Your task to perform on an android device: Search for Italian restaurants on Maps Image 0: 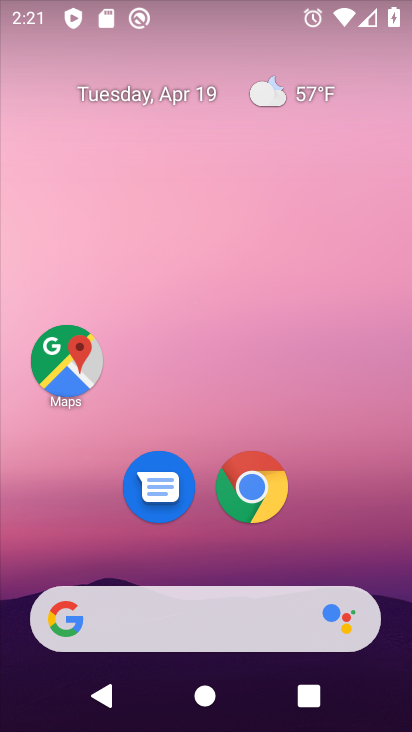
Step 0: drag from (376, 503) to (364, 110)
Your task to perform on an android device: Search for Italian restaurants on Maps Image 1: 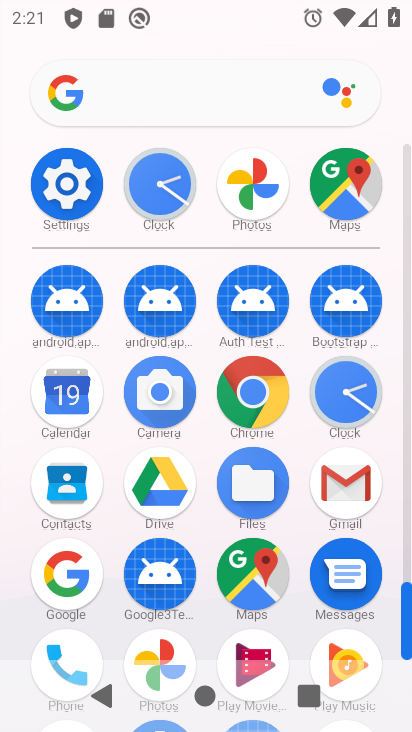
Step 1: click (246, 584)
Your task to perform on an android device: Search for Italian restaurants on Maps Image 2: 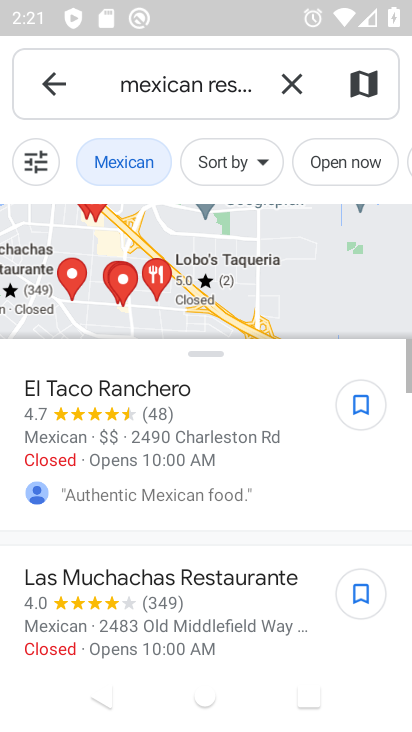
Step 2: click (297, 83)
Your task to perform on an android device: Search for Italian restaurants on Maps Image 3: 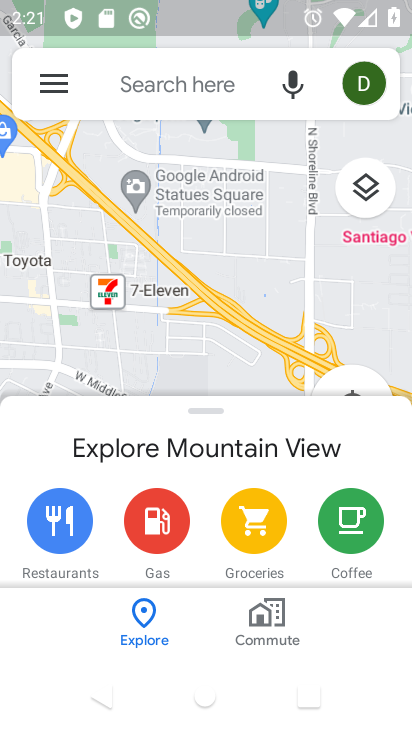
Step 3: click (195, 87)
Your task to perform on an android device: Search for Italian restaurants on Maps Image 4: 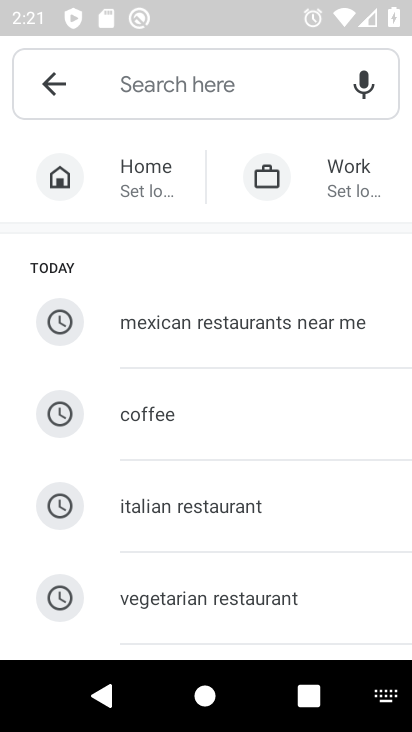
Step 4: click (234, 510)
Your task to perform on an android device: Search for Italian restaurants on Maps Image 5: 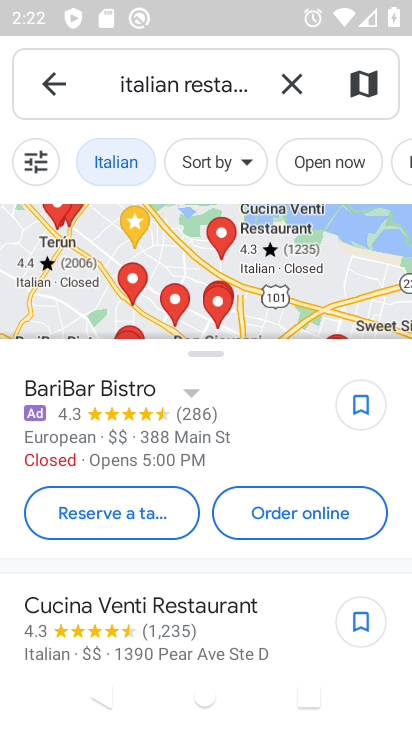
Step 5: task complete